Your task to perform on an android device: Open calendar and show me the fourth week of next month Image 0: 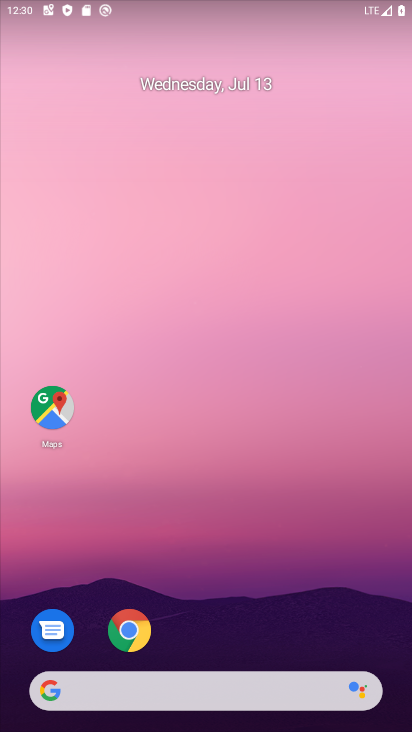
Step 0: drag from (395, 636) to (145, 33)
Your task to perform on an android device: Open calendar and show me the fourth week of next month Image 1: 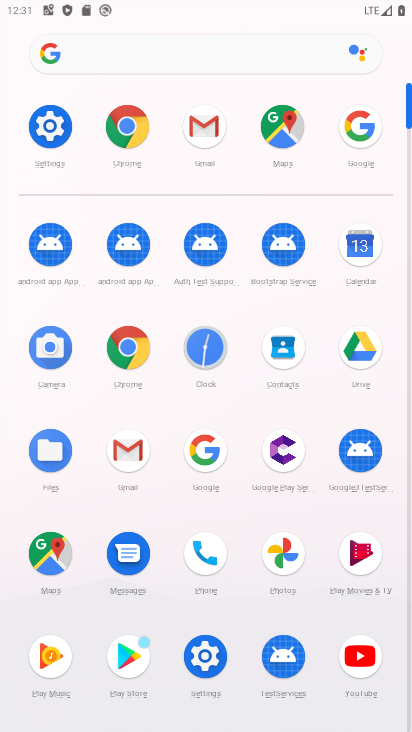
Step 1: click (357, 265)
Your task to perform on an android device: Open calendar and show me the fourth week of next month Image 2: 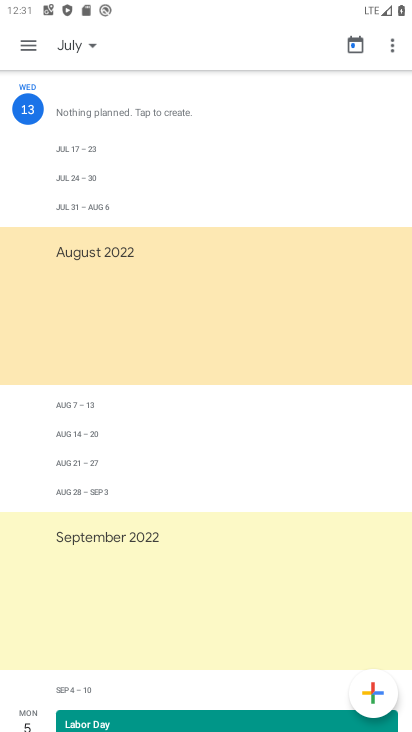
Step 2: click (79, 43)
Your task to perform on an android device: Open calendar and show me the fourth week of next month Image 3: 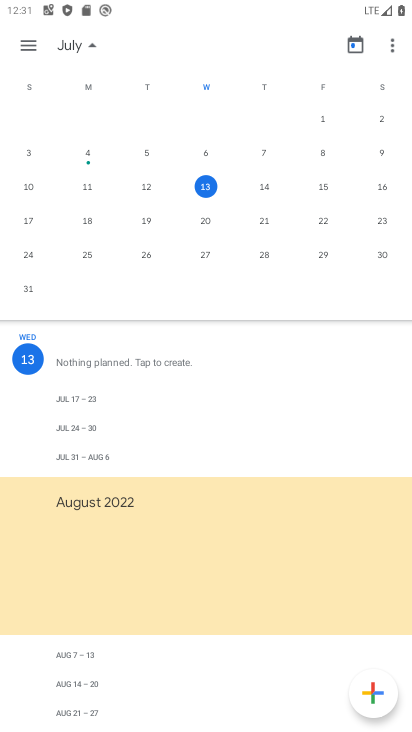
Step 3: drag from (398, 208) to (13, 149)
Your task to perform on an android device: Open calendar and show me the fourth week of next month Image 4: 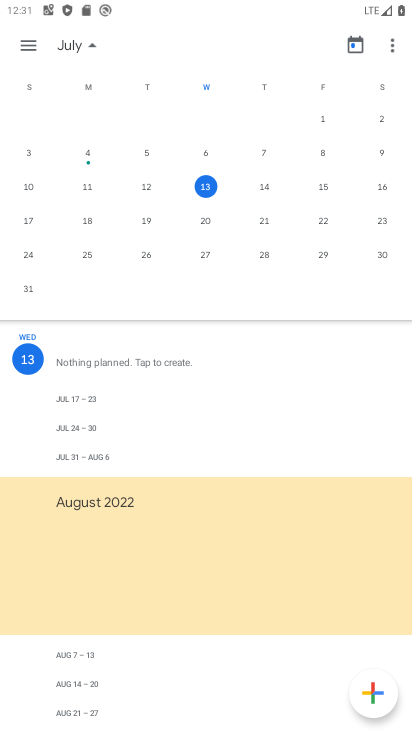
Step 4: drag from (334, 159) to (10, 187)
Your task to perform on an android device: Open calendar and show me the fourth week of next month Image 5: 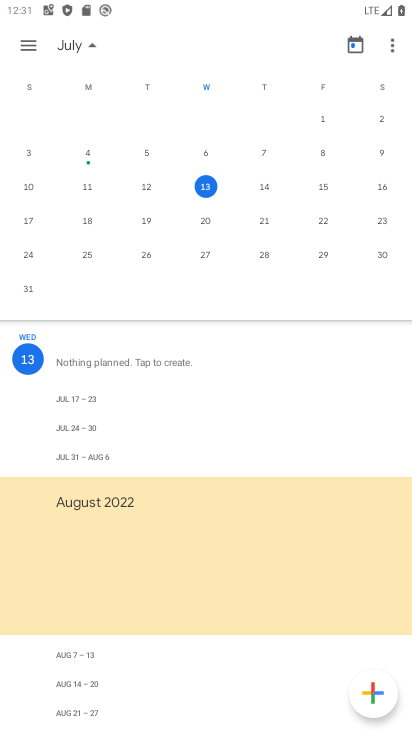
Step 5: drag from (345, 233) to (18, 161)
Your task to perform on an android device: Open calendar and show me the fourth week of next month Image 6: 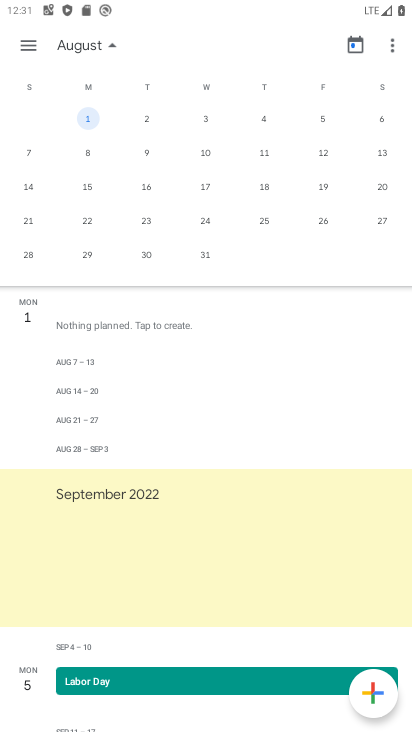
Step 6: drag from (329, 163) to (129, 198)
Your task to perform on an android device: Open calendar and show me the fourth week of next month Image 7: 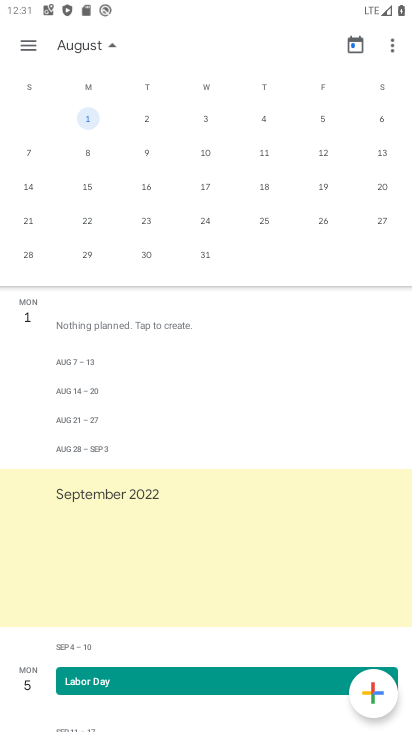
Step 7: click (28, 253)
Your task to perform on an android device: Open calendar and show me the fourth week of next month Image 8: 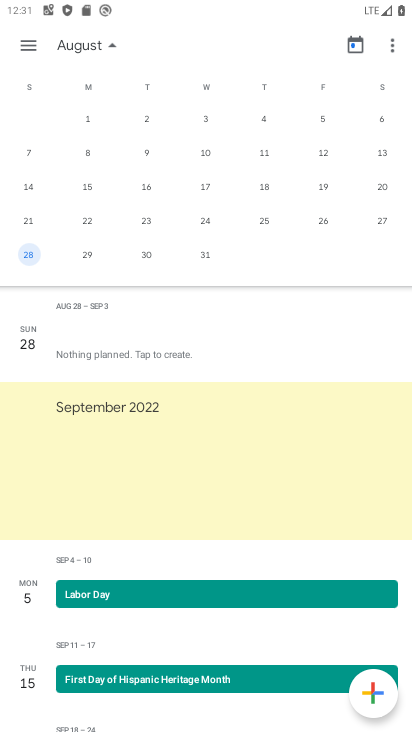
Step 8: task complete